Your task to perform on an android device: toggle pop-ups in chrome Image 0: 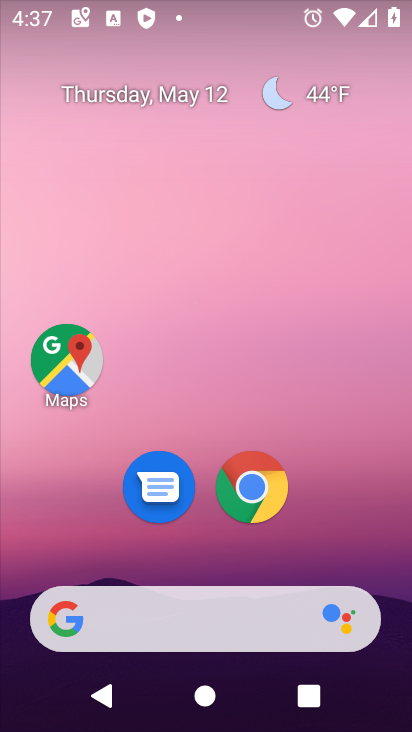
Step 0: click (218, 547)
Your task to perform on an android device: toggle pop-ups in chrome Image 1: 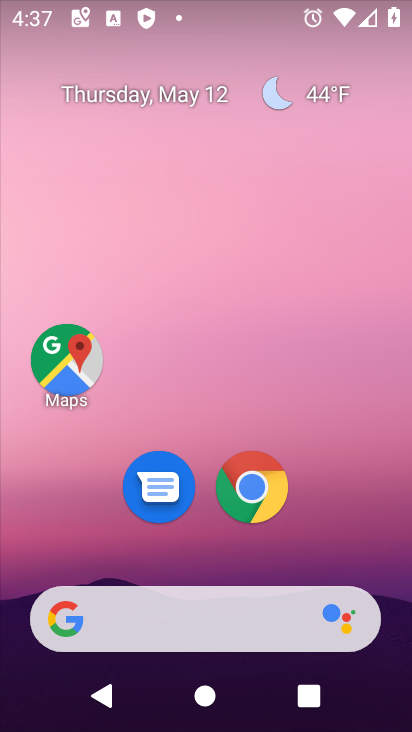
Step 1: click (236, 494)
Your task to perform on an android device: toggle pop-ups in chrome Image 2: 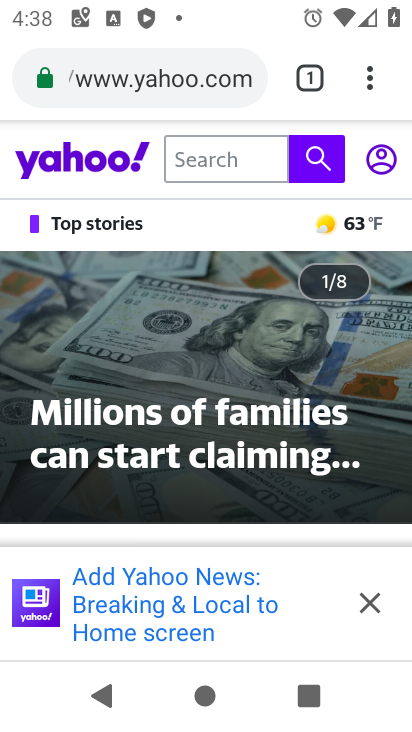
Step 2: click (370, 70)
Your task to perform on an android device: toggle pop-ups in chrome Image 3: 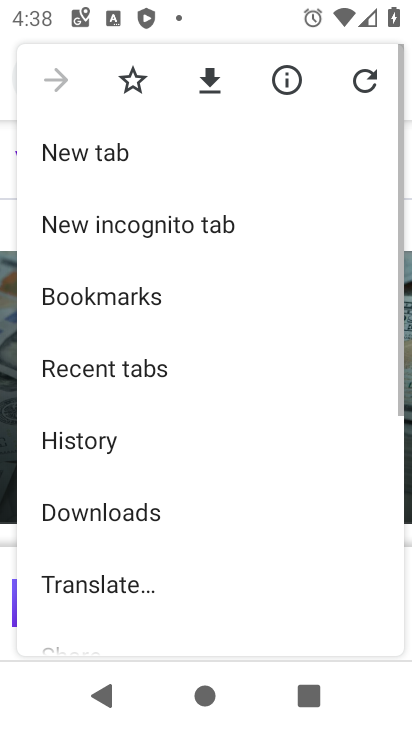
Step 3: drag from (203, 508) to (271, 145)
Your task to perform on an android device: toggle pop-ups in chrome Image 4: 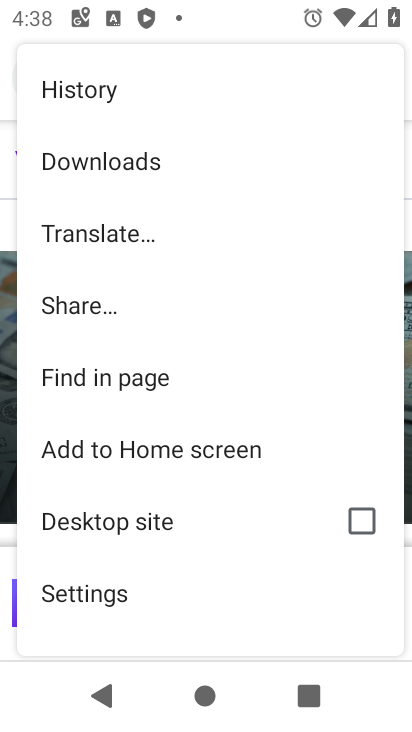
Step 4: drag from (176, 458) to (245, 124)
Your task to perform on an android device: toggle pop-ups in chrome Image 5: 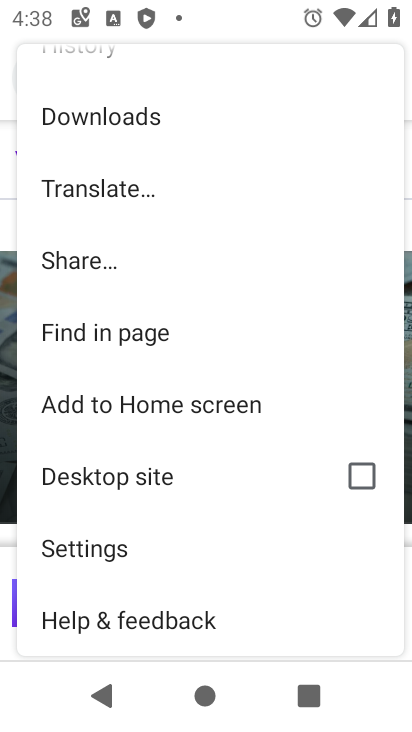
Step 5: click (150, 548)
Your task to perform on an android device: toggle pop-ups in chrome Image 6: 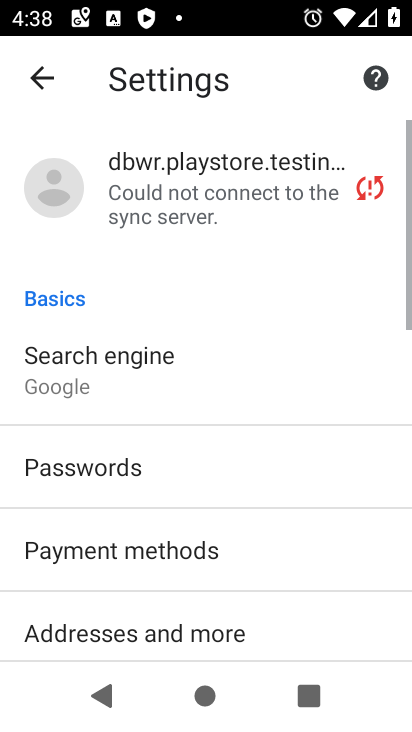
Step 6: drag from (150, 548) to (213, 114)
Your task to perform on an android device: toggle pop-ups in chrome Image 7: 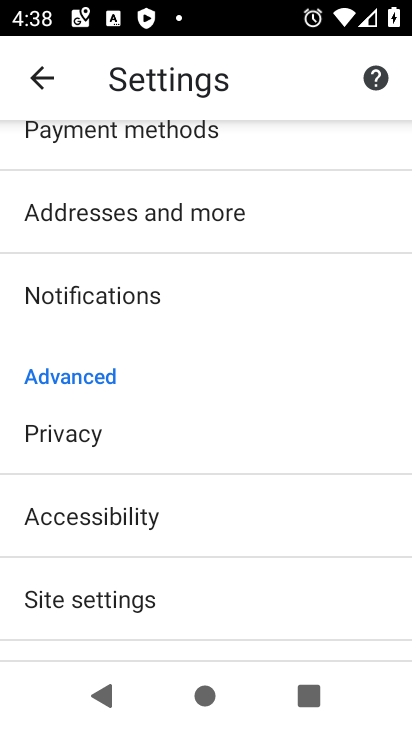
Step 7: drag from (192, 487) to (219, 188)
Your task to perform on an android device: toggle pop-ups in chrome Image 8: 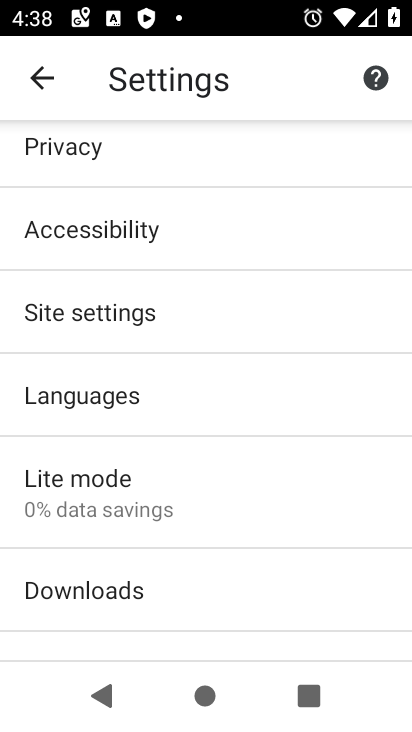
Step 8: click (186, 303)
Your task to perform on an android device: toggle pop-ups in chrome Image 9: 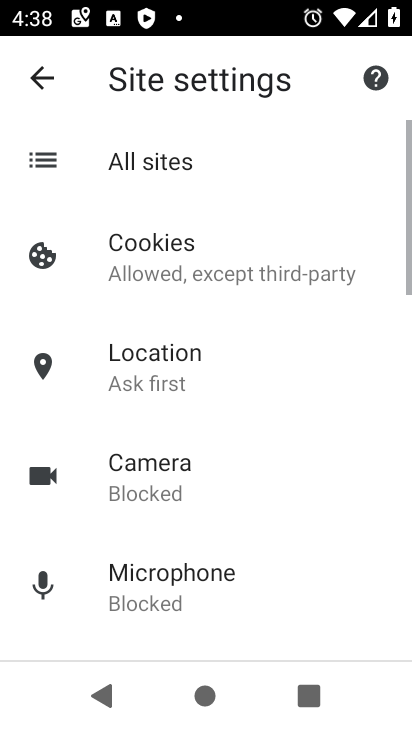
Step 9: drag from (233, 491) to (253, 186)
Your task to perform on an android device: toggle pop-ups in chrome Image 10: 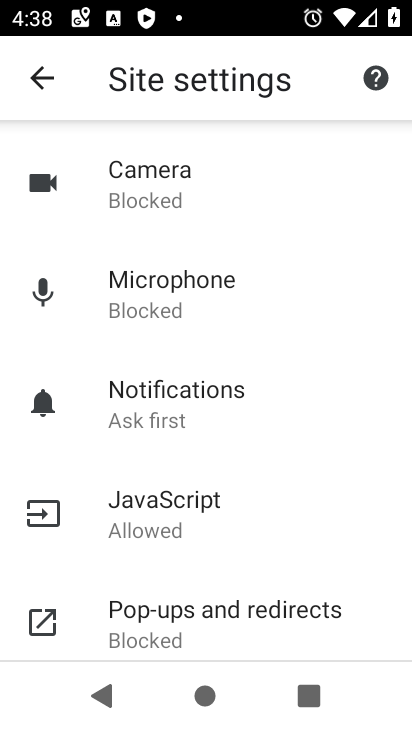
Step 10: drag from (293, 502) to (317, 202)
Your task to perform on an android device: toggle pop-ups in chrome Image 11: 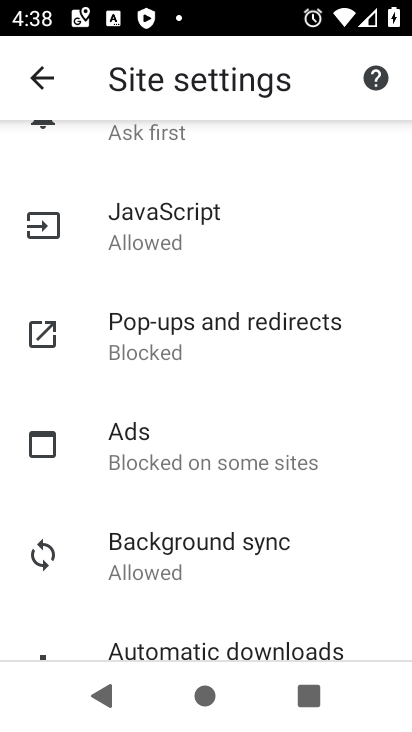
Step 11: click (268, 313)
Your task to perform on an android device: toggle pop-ups in chrome Image 12: 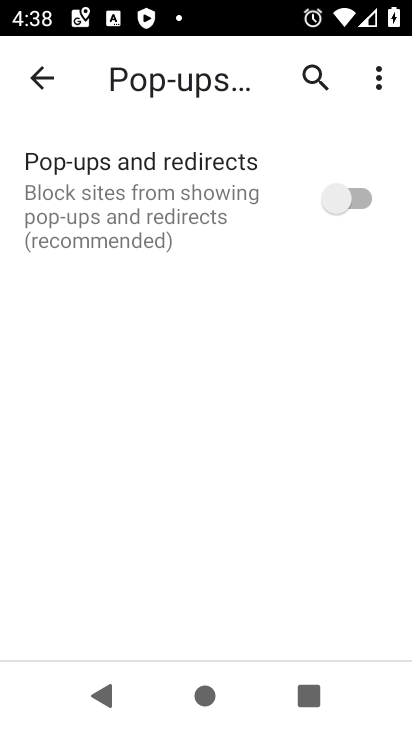
Step 12: click (332, 198)
Your task to perform on an android device: toggle pop-ups in chrome Image 13: 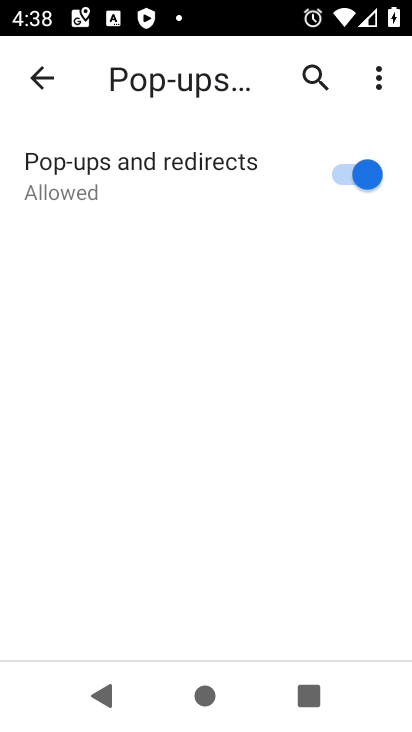
Step 13: task complete